Your task to perform on an android device: turn on data saver in the chrome app Image 0: 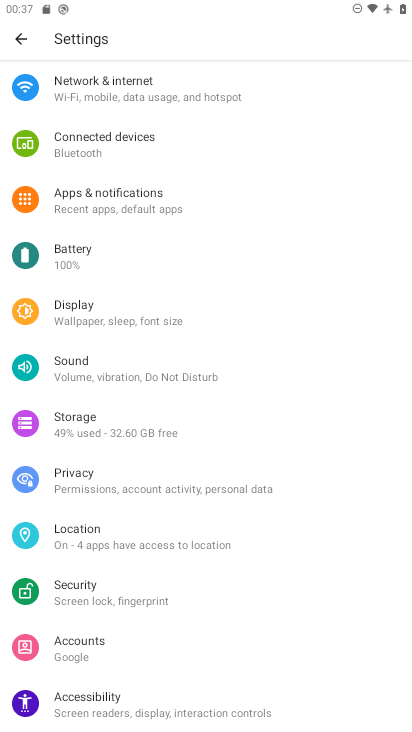
Step 0: press home button
Your task to perform on an android device: turn on data saver in the chrome app Image 1: 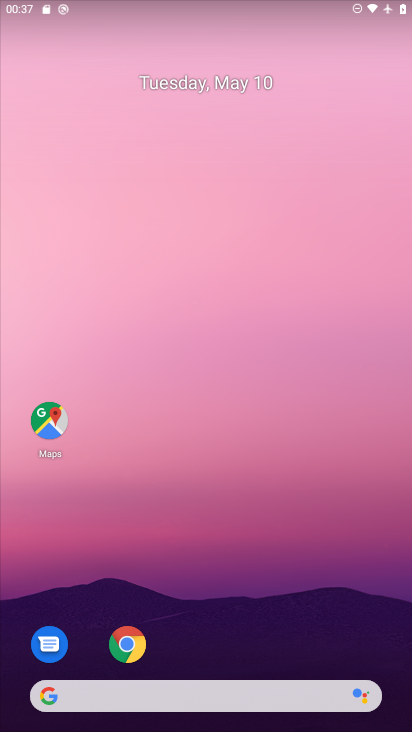
Step 1: click (127, 639)
Your task to perform on an android device: turn on data saver in the chrome app Image 2: 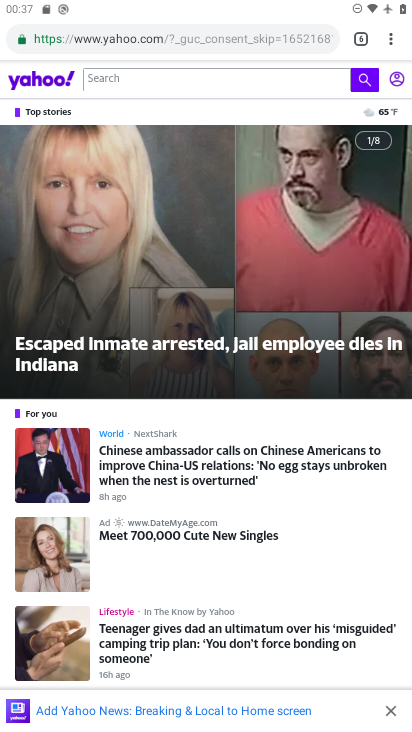
Step 2: drag from (389, 44) to (240, 460)
Your task to perform on an android device: turn on data saver in the chrome app Image 3: 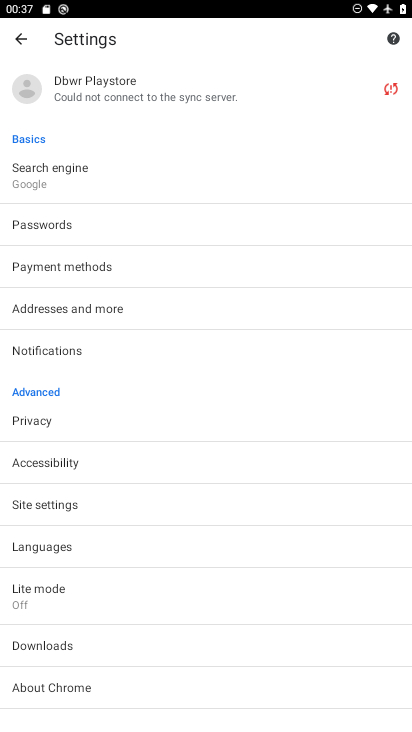
Step 3: click (64, 592)
Your task to perform on an android device: turn on data saver in the chrome app Image 4: 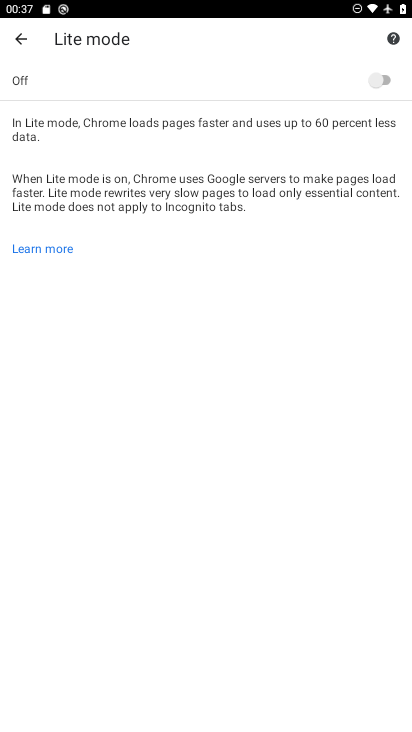
Step 4: click (385, 81)
Your task to perform on an android device: turn on data saver in the chrome app Image 5: 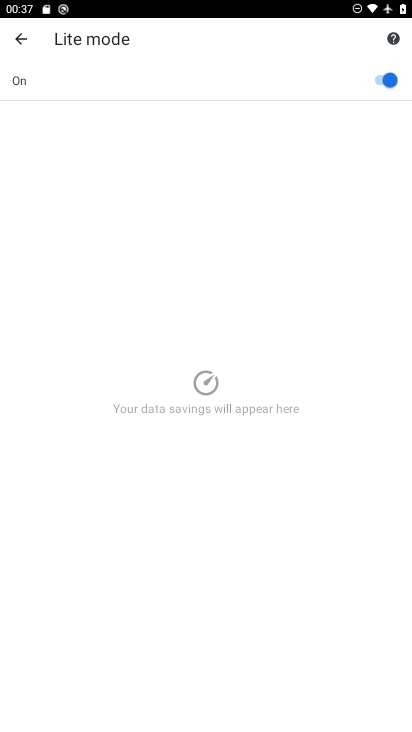
Step 5: task complete